Your task to perform on an android device: turn on bluetooth scan Image 0: 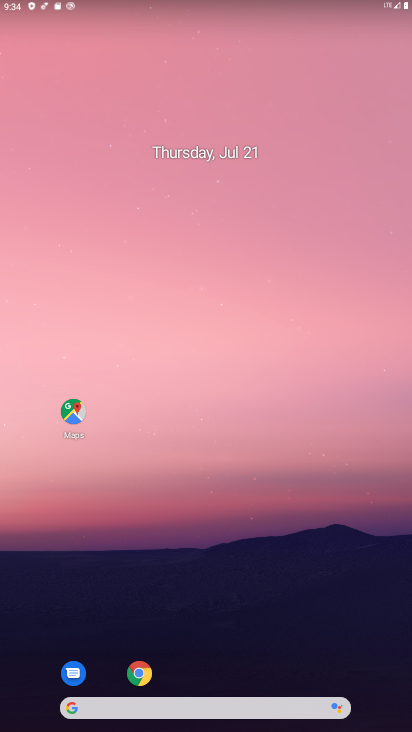
Step 0: drag from (215, 676) to (196, 401)
Your task to perform on an android device: turn on bluetooth scan Image 1: 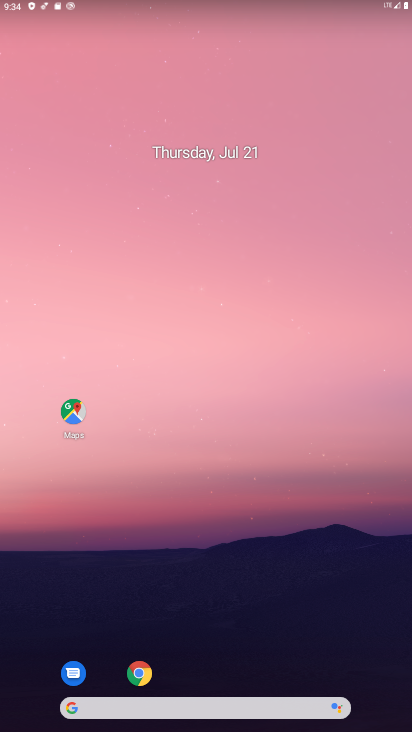
Step 1: drag from (208, 727) to (228, 74)
Your task to perform on an android device: turn on bluetooth scan Image 2: 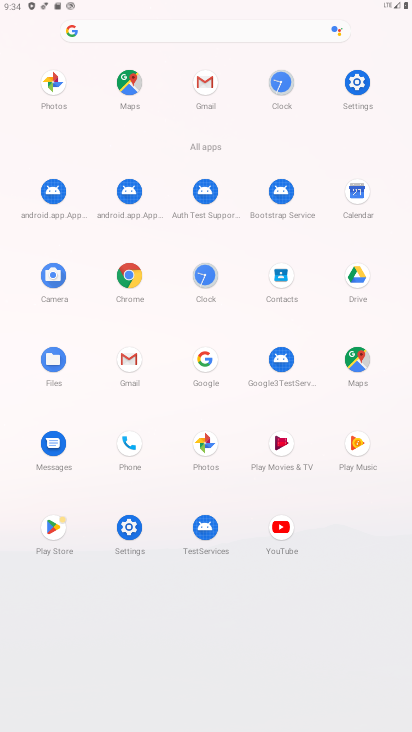
Step 2: click (365, 81)
Your task to perform on an android device: turn on bluetooth scan Image 3: 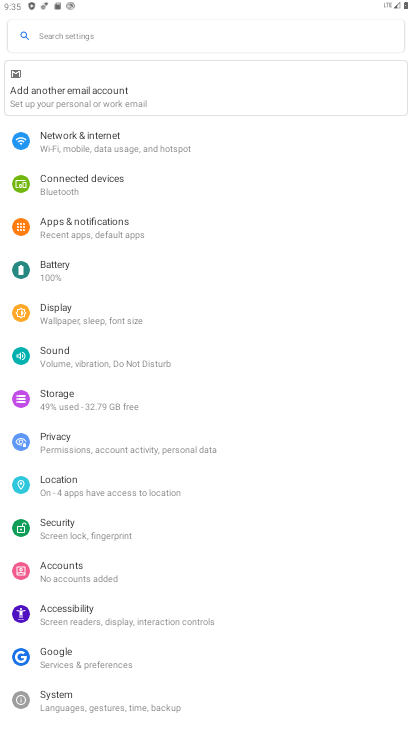
Step 3: click (52, 483)
Your task to perform on an android device: turn on bluetooth scan Image 4: 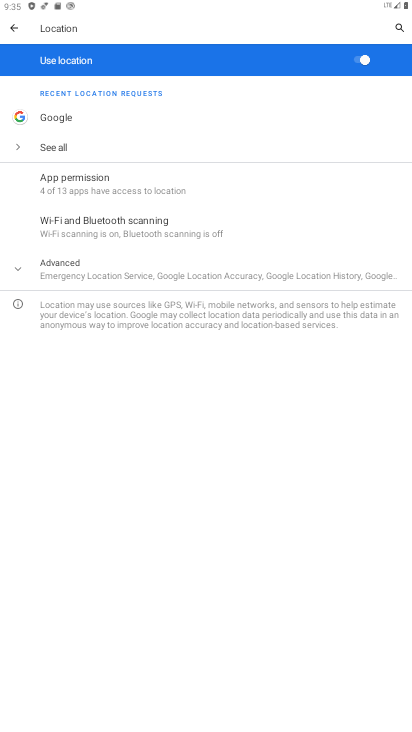
Step 4: click (112, 229)
Your task to perform on an android device: turn on bluetooth scan Image 5: 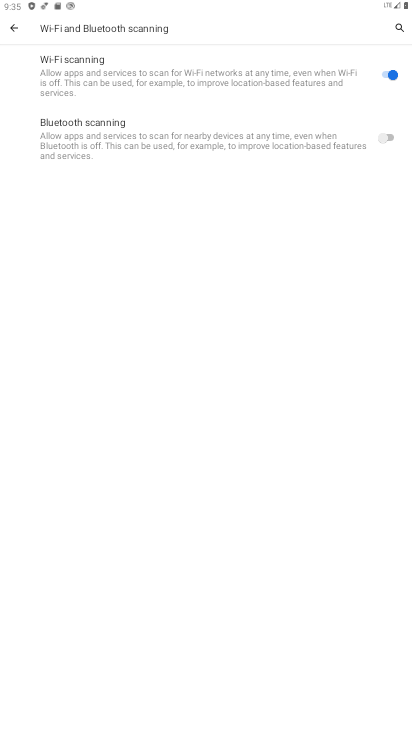
Step 5: click (390, 135)
Your task to perform on an android device: turn on bluetooth scan Image 6: 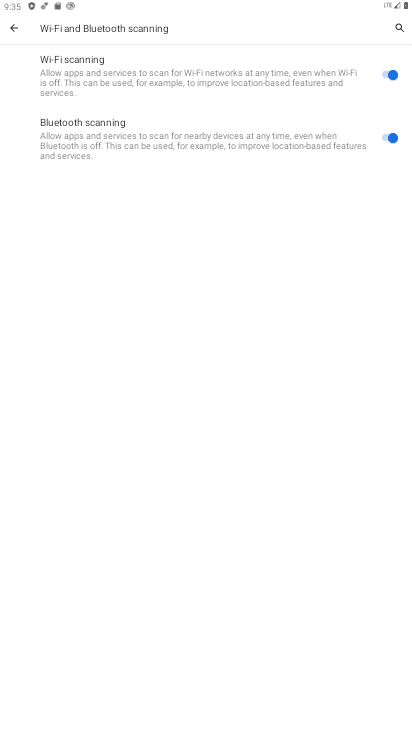
Step 6: task complete